Your task to perform on an android device: snooze an email in the gmail app Image 0: 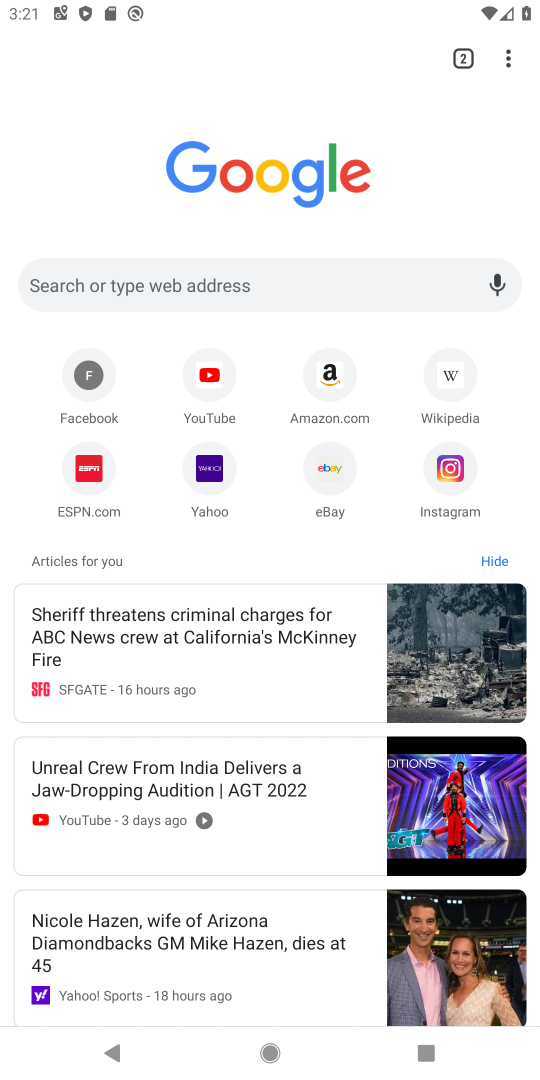
Step 0: press home button
Your task to perform on an android device: snooze an email in the gmail app Image 1: 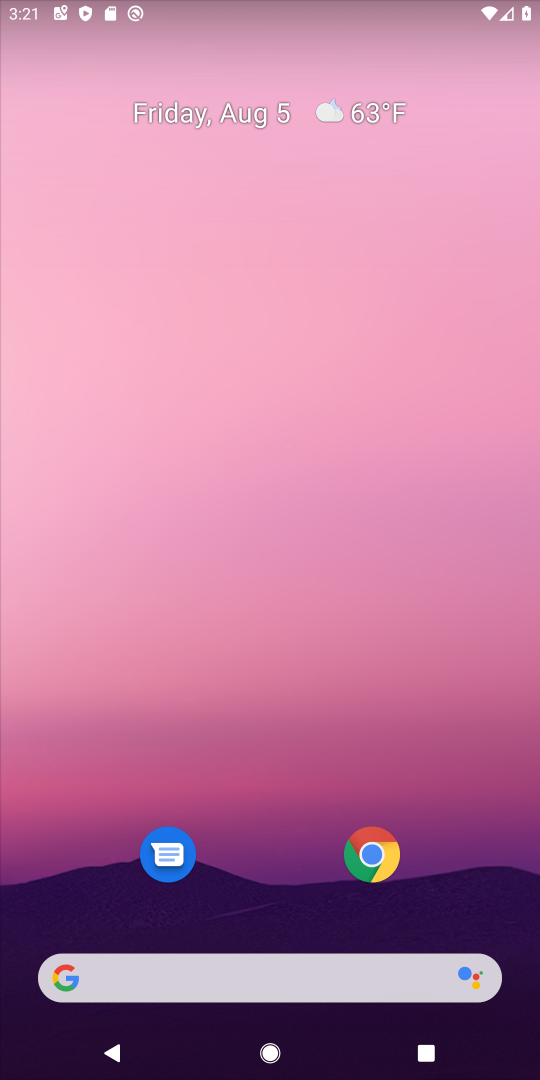
Step 1: drag from (75, 1036) to (376, 461)
Your task to perform on an android device: snooze an email in the gmail app Image 2: 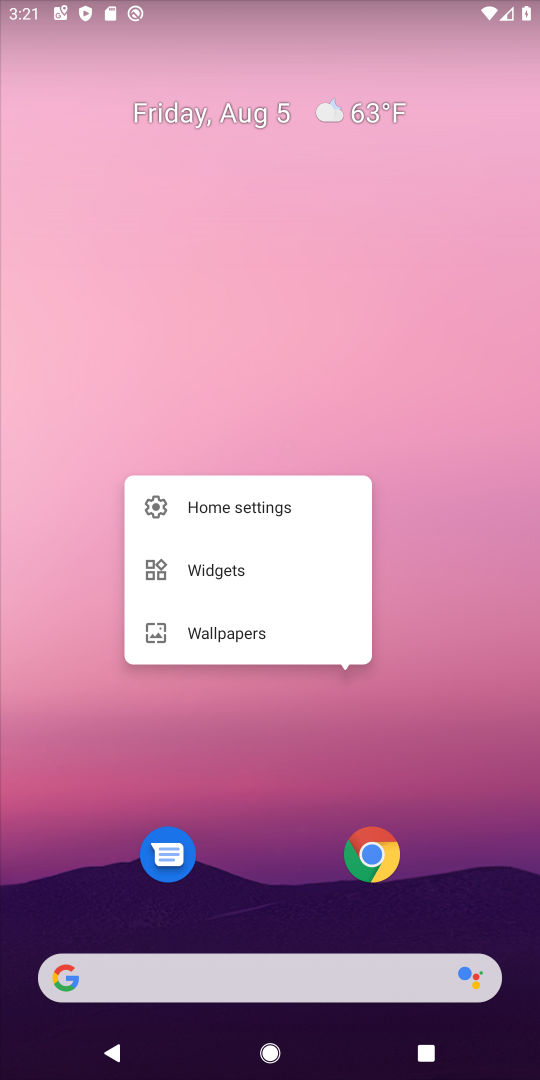
Step 2: drag from (50, 1061) to (387, 406)
Your task to perform on an android device: snooze an email in the gmail app Image 3: 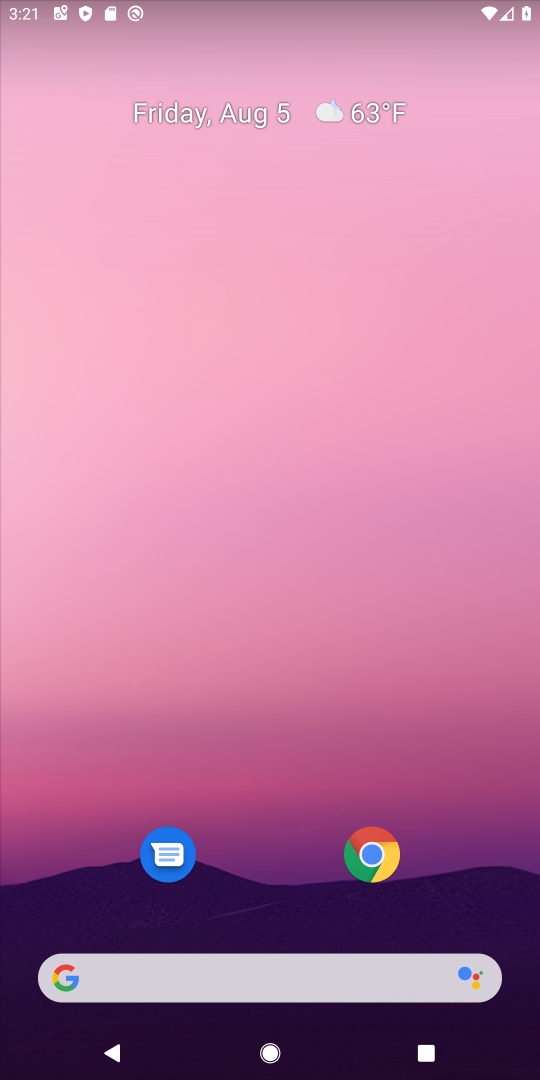
Step 3: click (63, 1039)
Your task to perform on an android device: snooze an email in the gmail app Image 4: 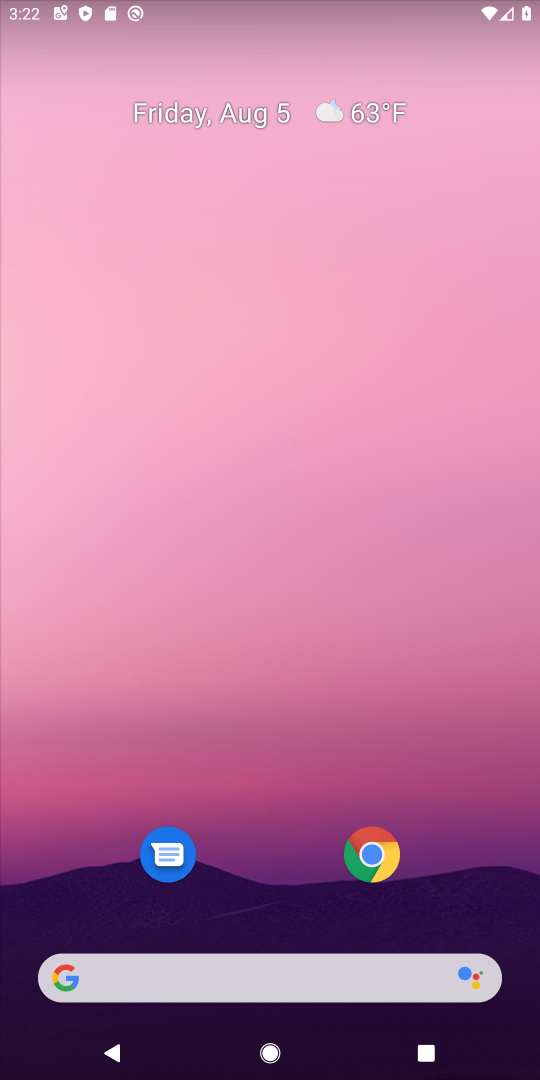
Step 4: drag from (63, 1039) to (248, 275)
Your task to perform on an android device: snooze an email in the gmail app Image 5: 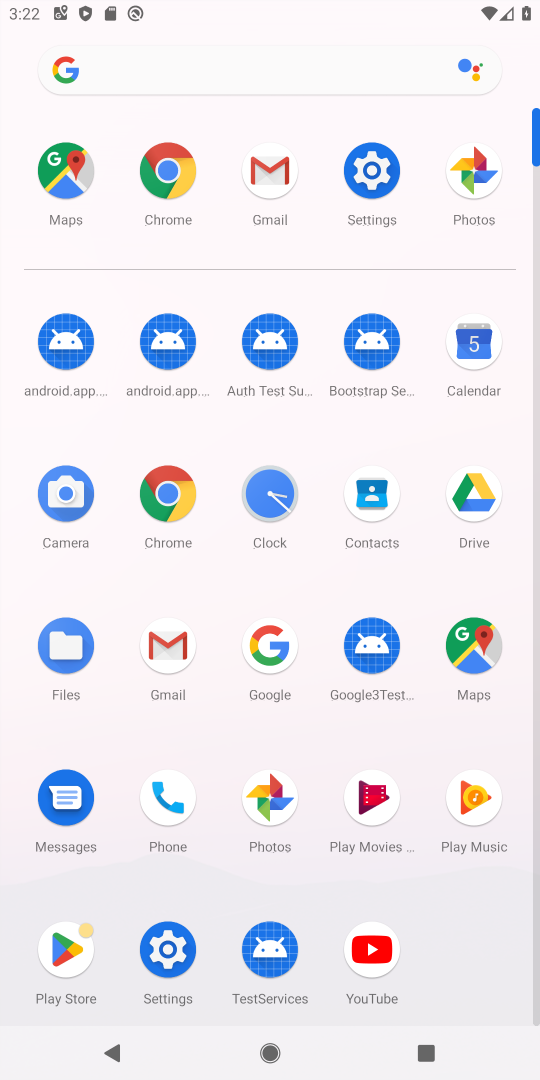
Step 5: click (166, 672)
Your task to perform on an android device: snooze an email in the gmail app Image 6: 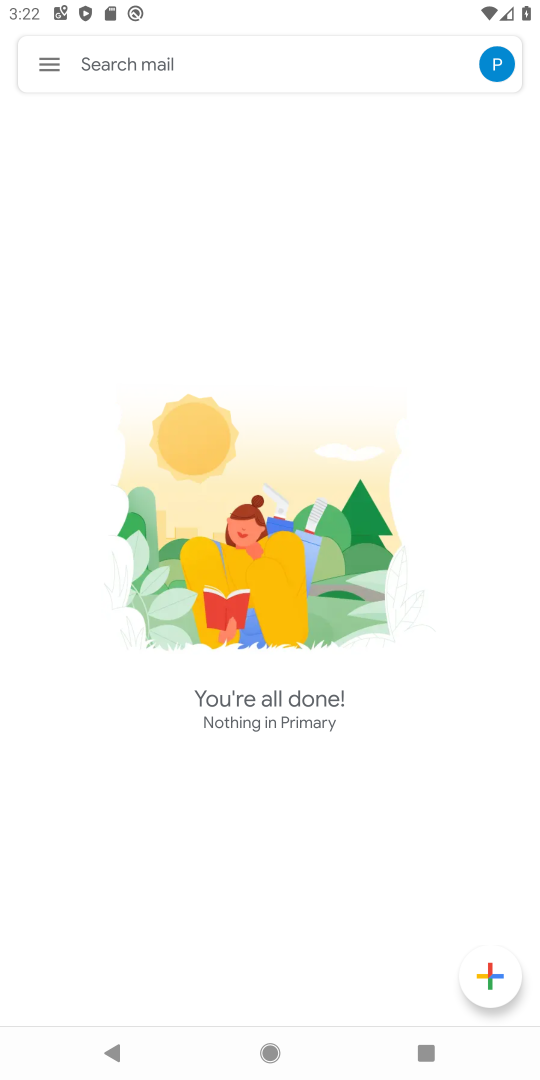
Step 6: click (57, 69)
Your task to perform on an android device: snooze an email in the gmail app Image 7: 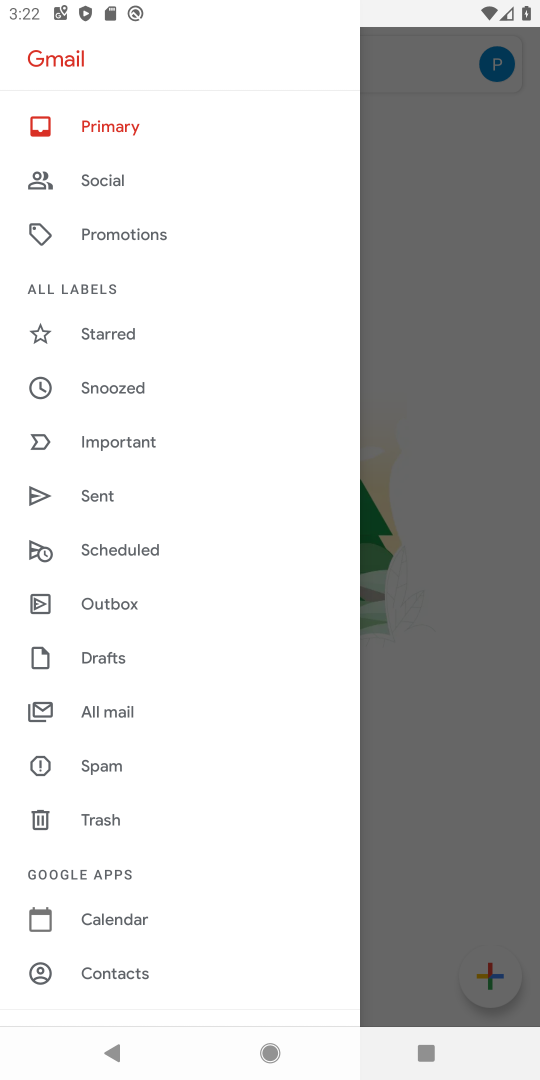
Step 7: click (138, 387)
Your task to perform on an android device: snooze an email in the gmail app Image 8: 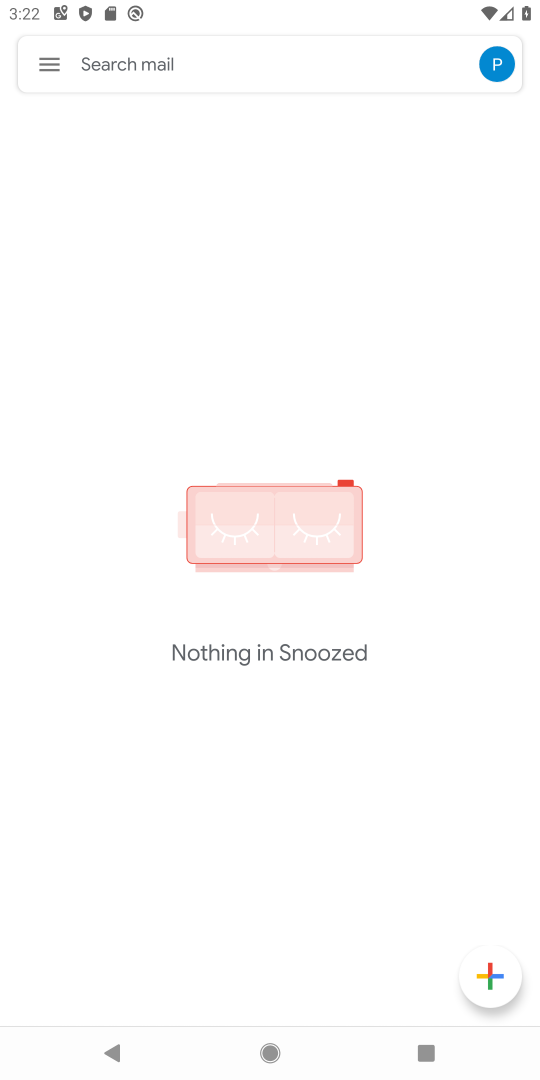
Step 8: task complete